Your task to perform on an android device: turn off priority inbox in the gmail app Image 0: 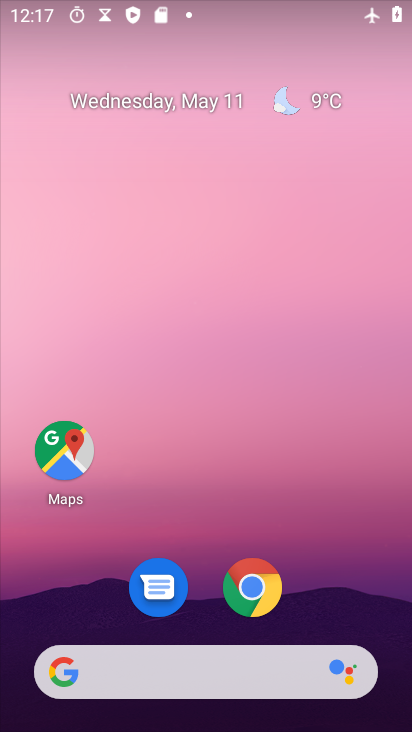
Step 0: drag from (383, 611) to (55, 87)
Your task to perform on an android device: turn off priority inbox in the gmail app Image 1: 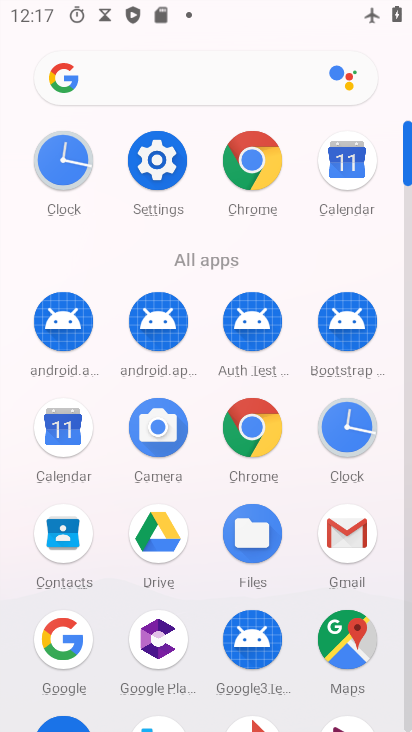
Step 1: click (343, 531)
Your task to perform on an android device: turn off priority inbox in the gmail app Image 2: 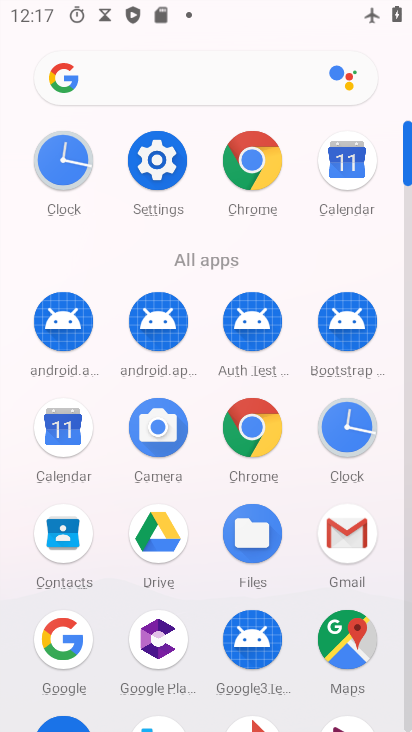
Step 2: click (343, 531)
Your task to perform on an android device: turn off priority inbox in the gmail app Image 3: 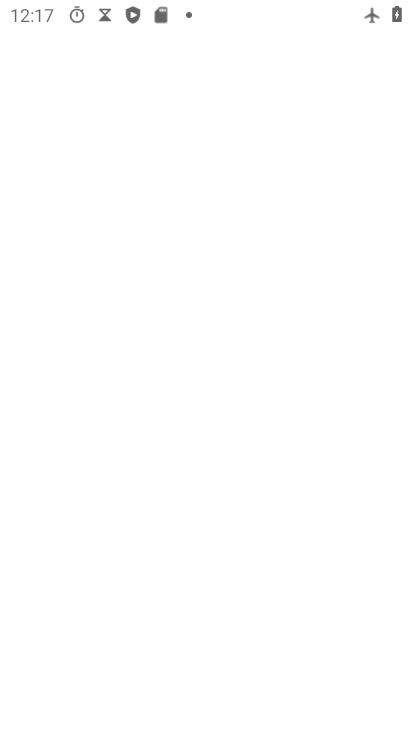
Step 3: click (343, 531)
Your task to perform on an android device: turn off priority inbox in the gmail app Image 4: 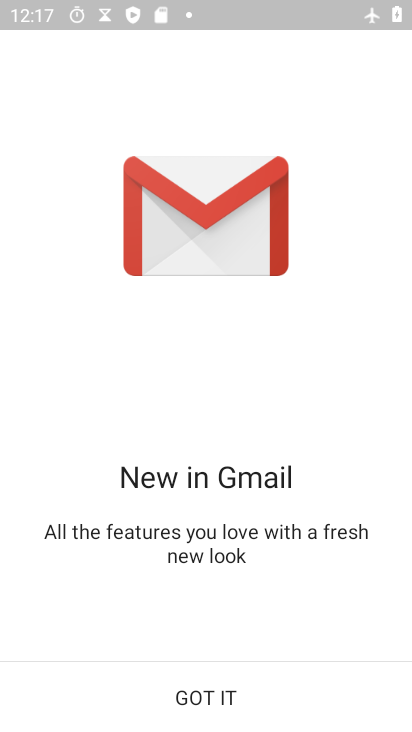
Step 4: click (214, 668)
Your task to perform on an android device: turn off priority inbox in the gmail app Image 5: 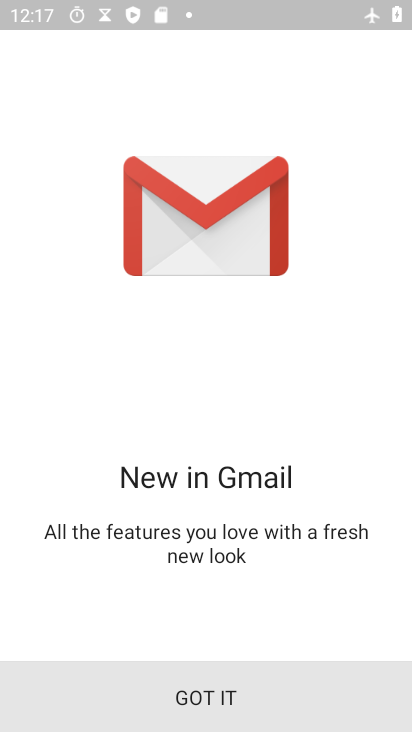
Step 5: click (218, 696)
Your task to perform on an android device: turn off priority inbox in the gmail app Image 6: 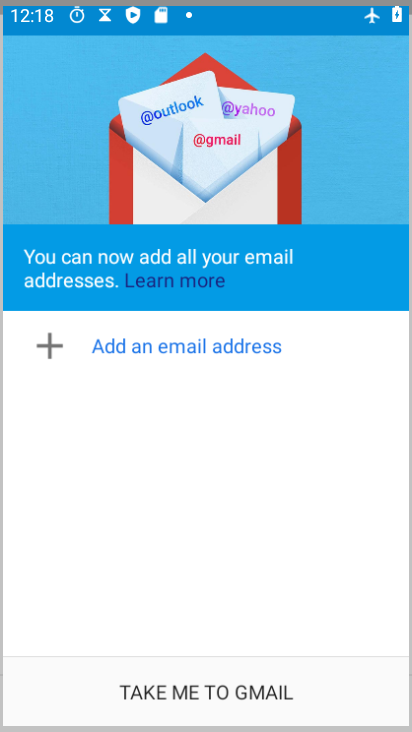
Step 6: click (220, 698)
Your task to perform on an android device: turn off priority inbox in the gmail app Image 7: 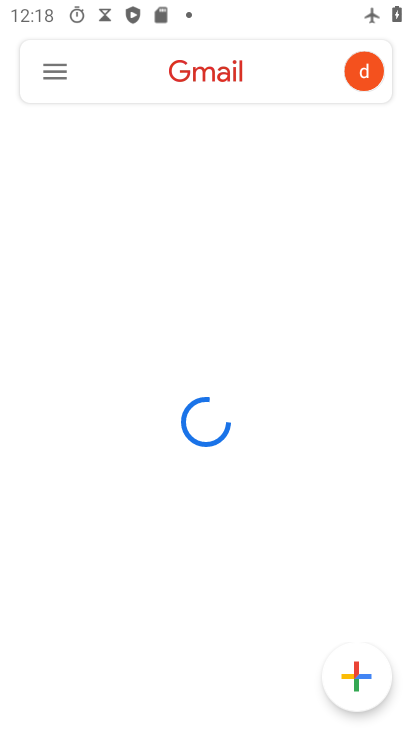
Step 7: click (62, 79)
Your task to perform on an android device: turn off priority inbox in the gmail app Image 8: 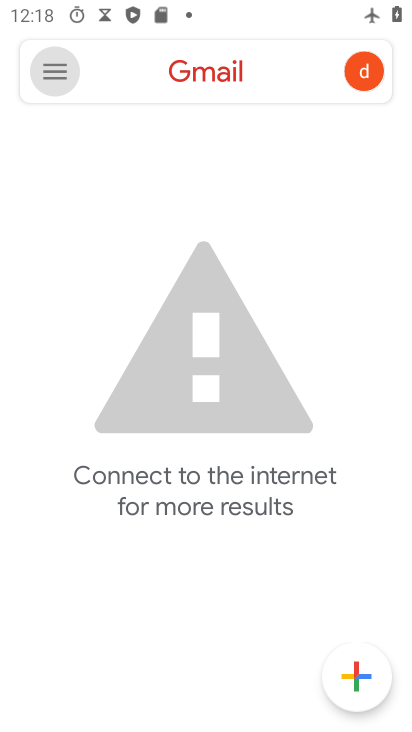
Step 8: click (63, 84)
Your task to perform on an android device: turn off priority inbox in the gmail app Image 9: 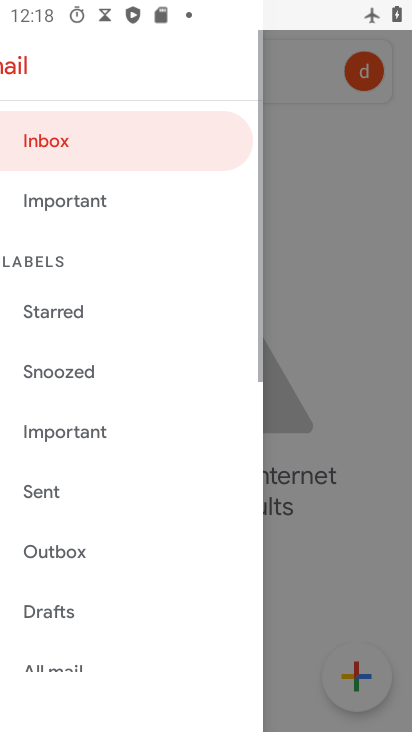
Step 9: click (64, 88)
Your task to perform on an android device: turn off priority inbox in the gmail app Image 10: 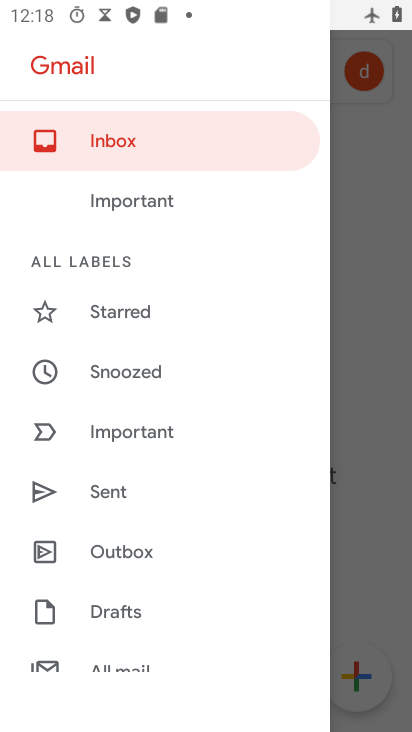
Step 10: drag from (169, 576) to (84, 172)
Your task to perform on an android device: turn off priority inbox in the gmail app Image 11: 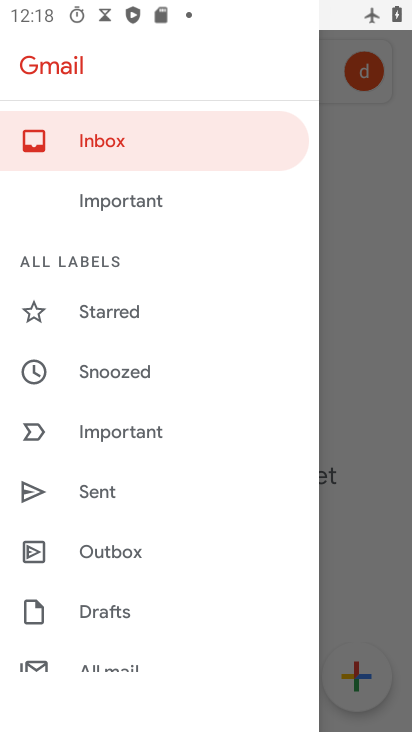
Step 11: drag from (171, 447) to (136, 121)
Your task to perform on an android device: turn off priority inbox in the gmail app Image 12: 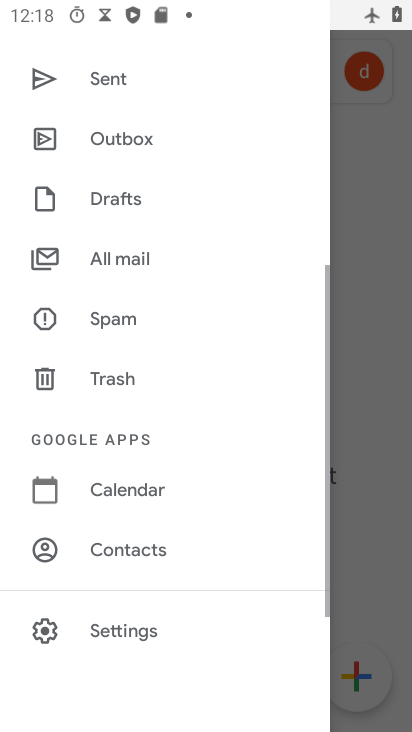
Step 12: drag from (117, 526) to (112, 176)
Your task to perform on an android device: turn off priority inbox in the gmail app Image 13: 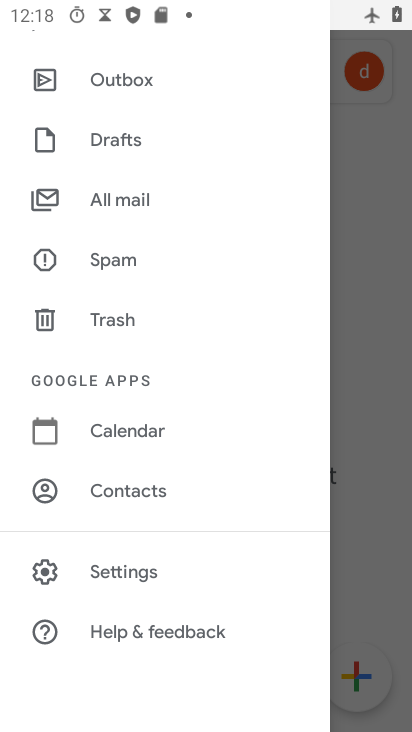
Step 13: click (112, 569)
Your task to perform on an android device: turn off priority inbox in the gmail app Image 14: 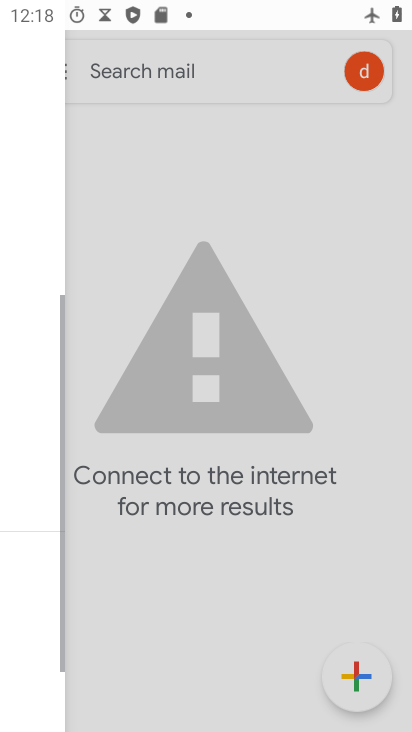
Step 14: click (112, 568)
Your task to perform on an android device: turn off priority inbox in the gmail app Image 15: 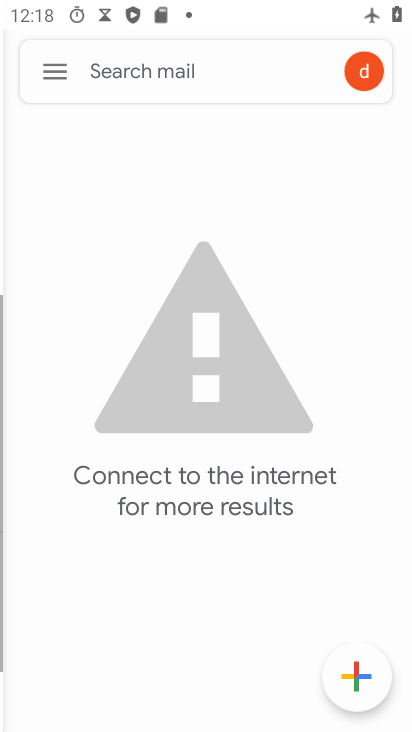
Step 15: click (112, 567)
Your task to perform on an android device: turn off priority inbox in the gmail app Image 16: 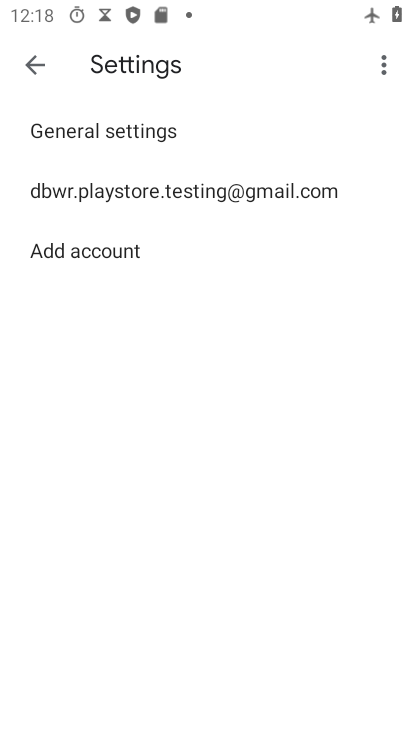
Step 16: click (103, 188)
Your task to perform on an android device: turn off priority inbox in the gmail app Image 17: 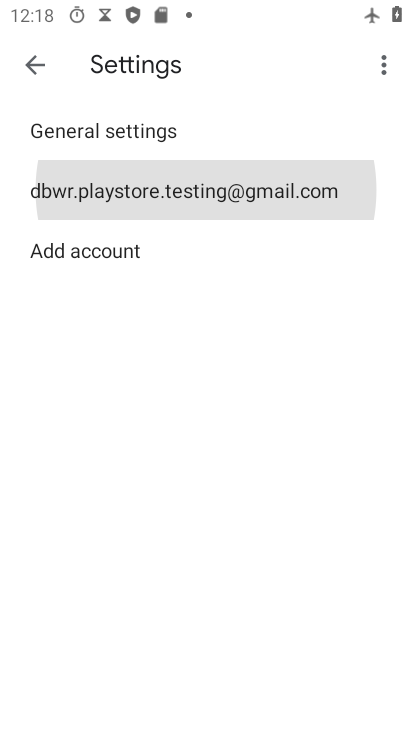
Step 17: click (103, 188)
Your task to perform on an android device: turn off priority inbox in the gmail app Image 18: 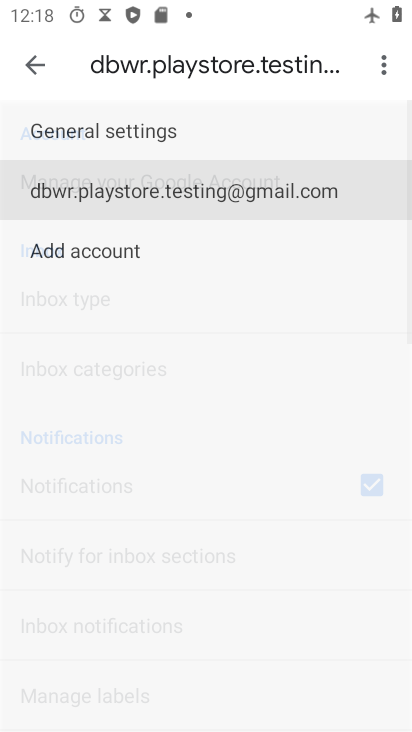
Step 18: click (103, 188)
Your task to perform on an android device: turn off priority inbox in the gmail app Image 19: 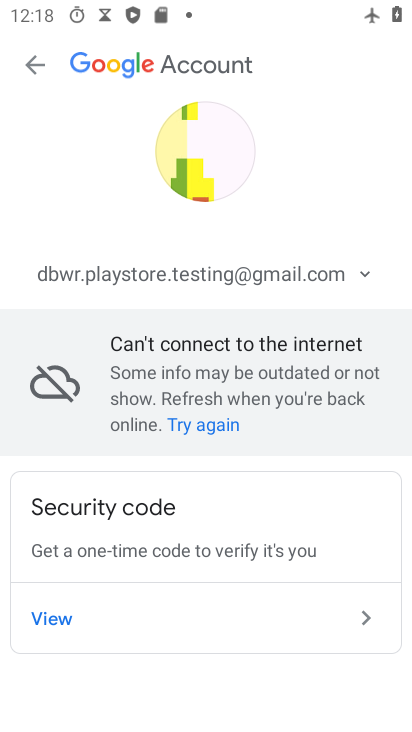
Step 19: task complete